Your task to perform on an android device: Search for razer blade on bestbuy.com, select the first entry, and add it to the cart. Image 0: 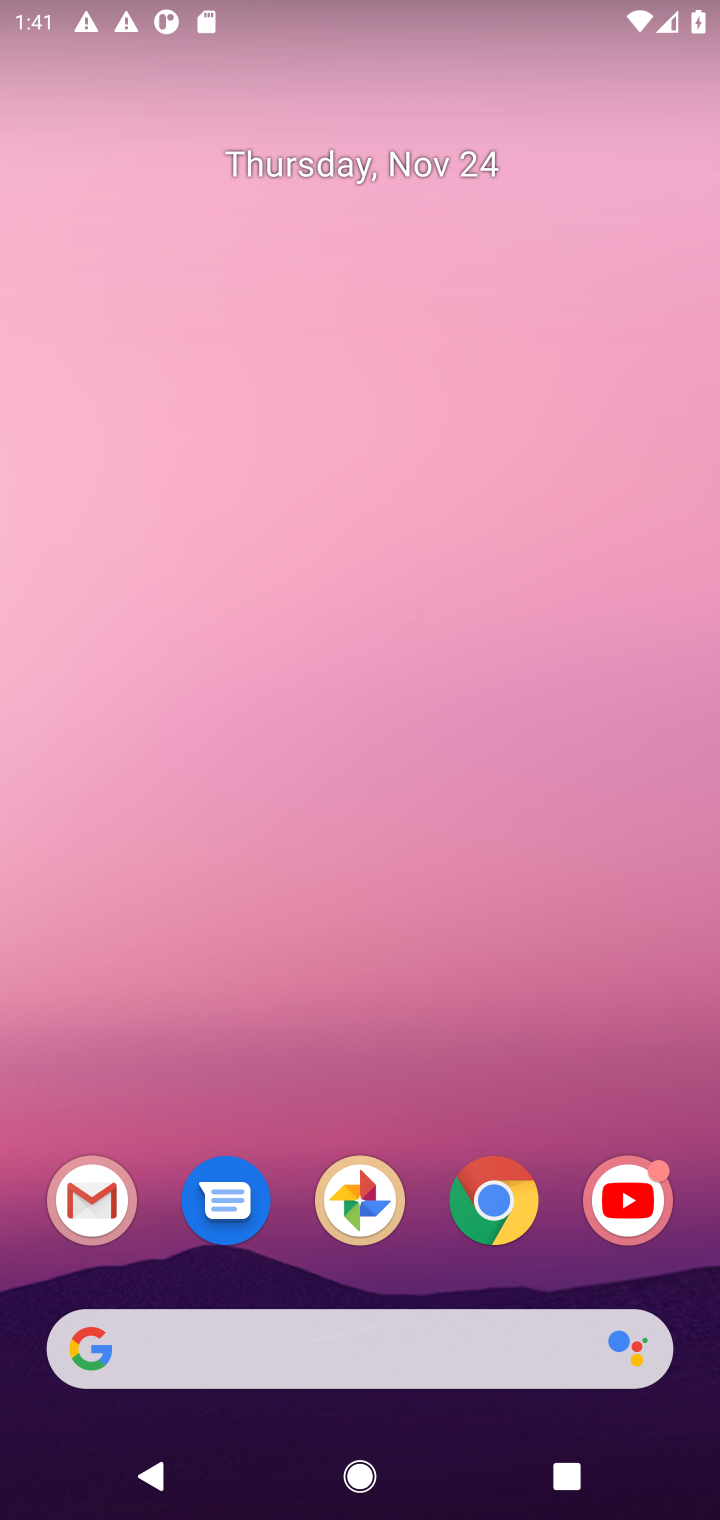
Step 0: click (478, 1367)
Your task to perform on an android device: Search for razer blade on bestbuy.com, select the first entry, and add it to the cart. Image 1: 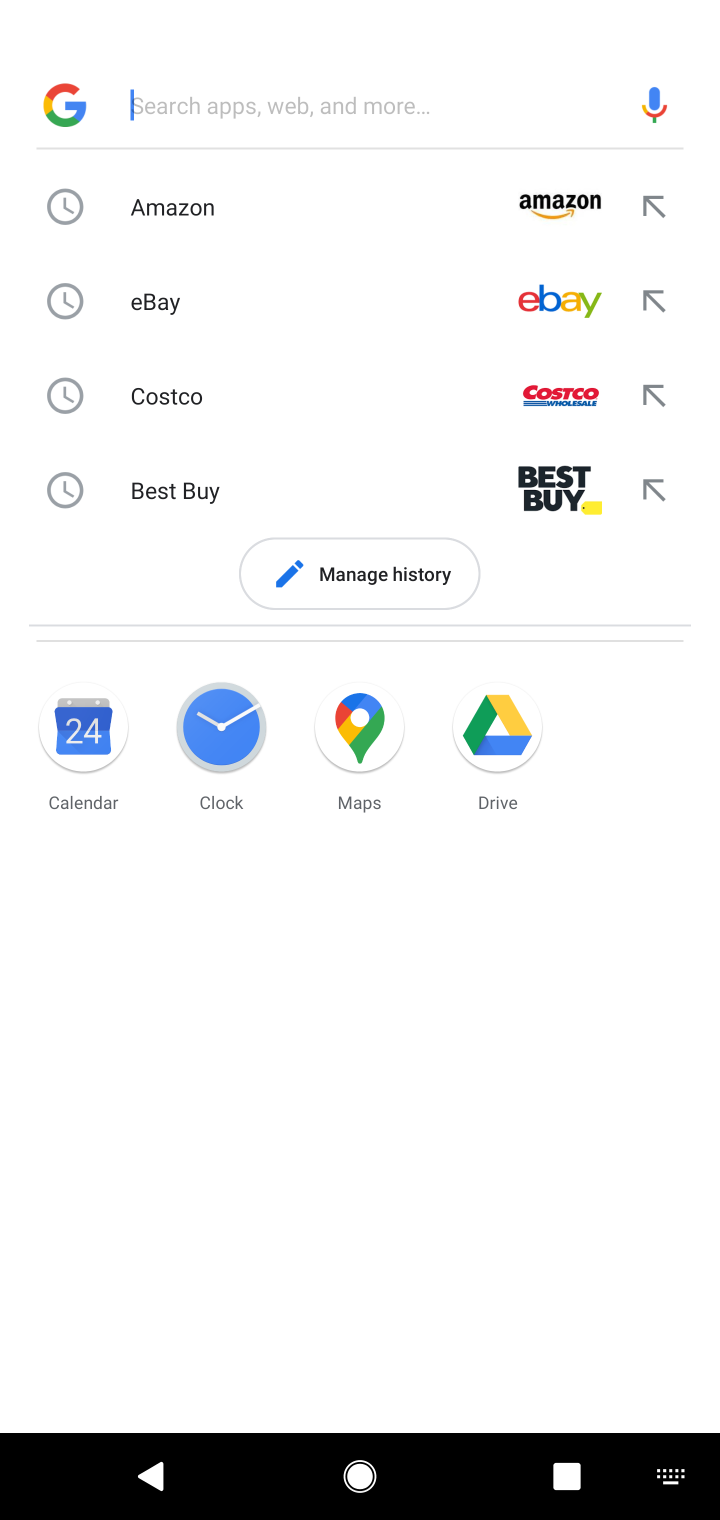
Step 1: type "bestbuy"
Your task to perform on an android device: Search for razer blade on bestbuy.com, select the first entry, and add it to the cart. Image 2: 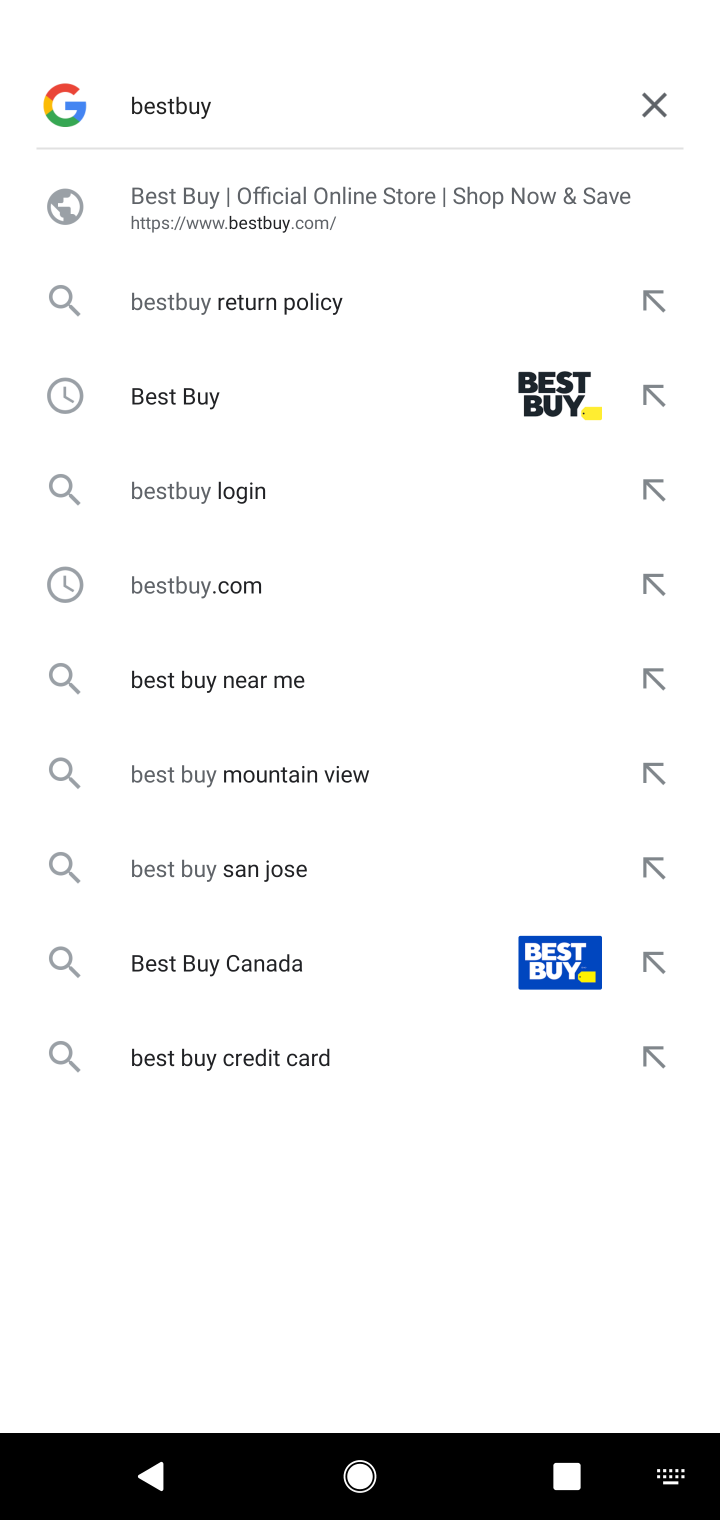
Step 2: click (356, 399)
Your task to perform on an android device: Search for razer blade on bestbuy.com, select the first entry, and add it to the cart. Image 3: 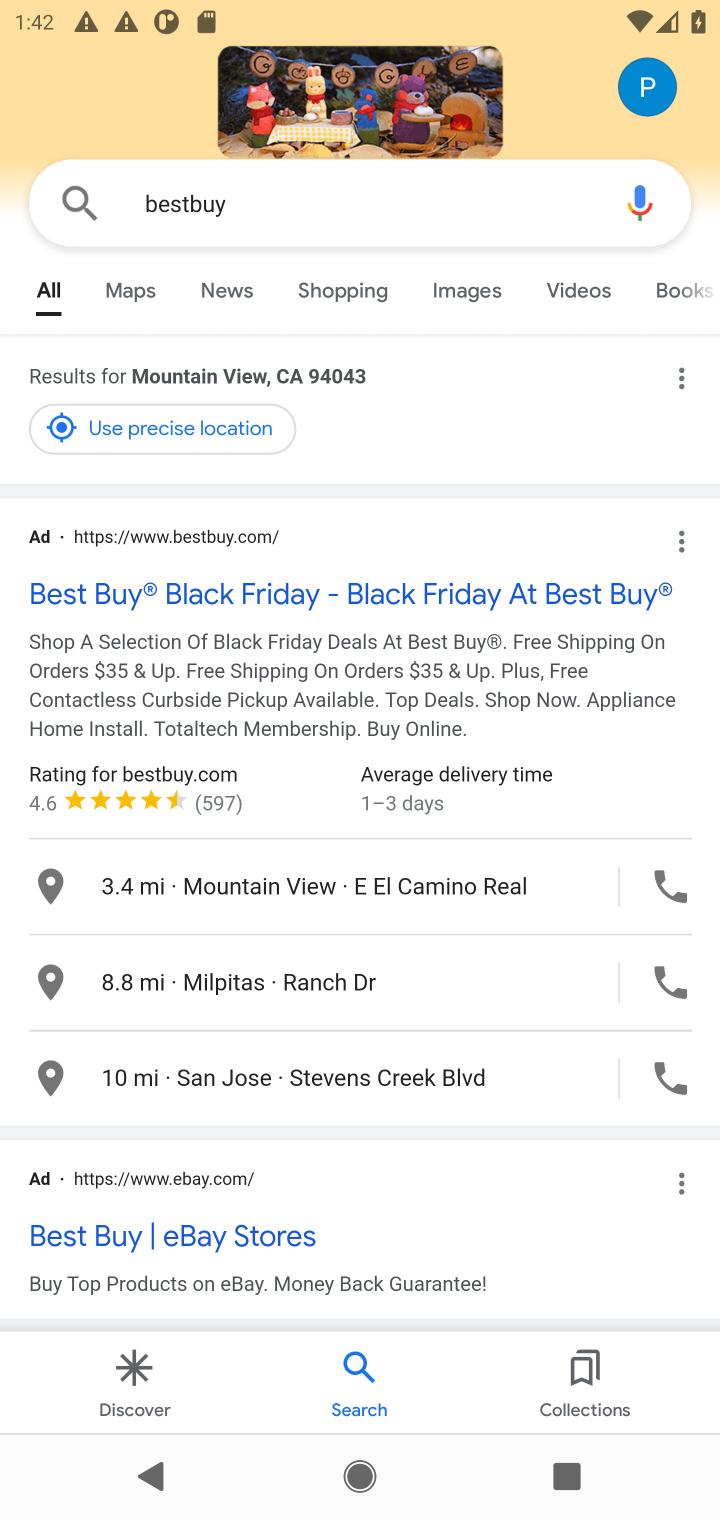
Step 3: click (208, 556)
Your task to perform on an android device: Search for razer blade on bestbuy.com, select the first entry, and add it to the cart. Image 4: 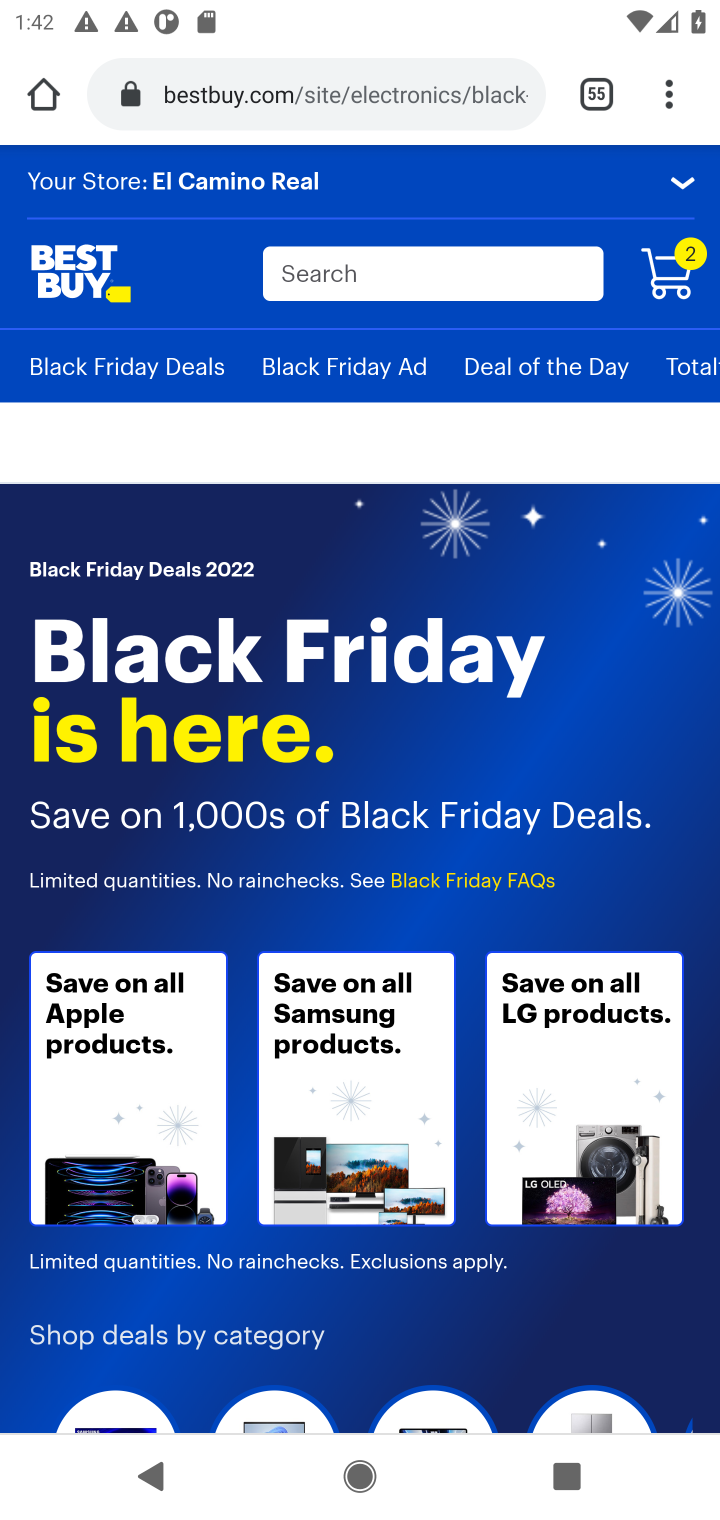
Step 4: drag from (212, 742) to (223, 278)
Your task to perform on an android device: Search for razer blade on bestbuy.com, select the first entry, and add it to the cart. Image 5: 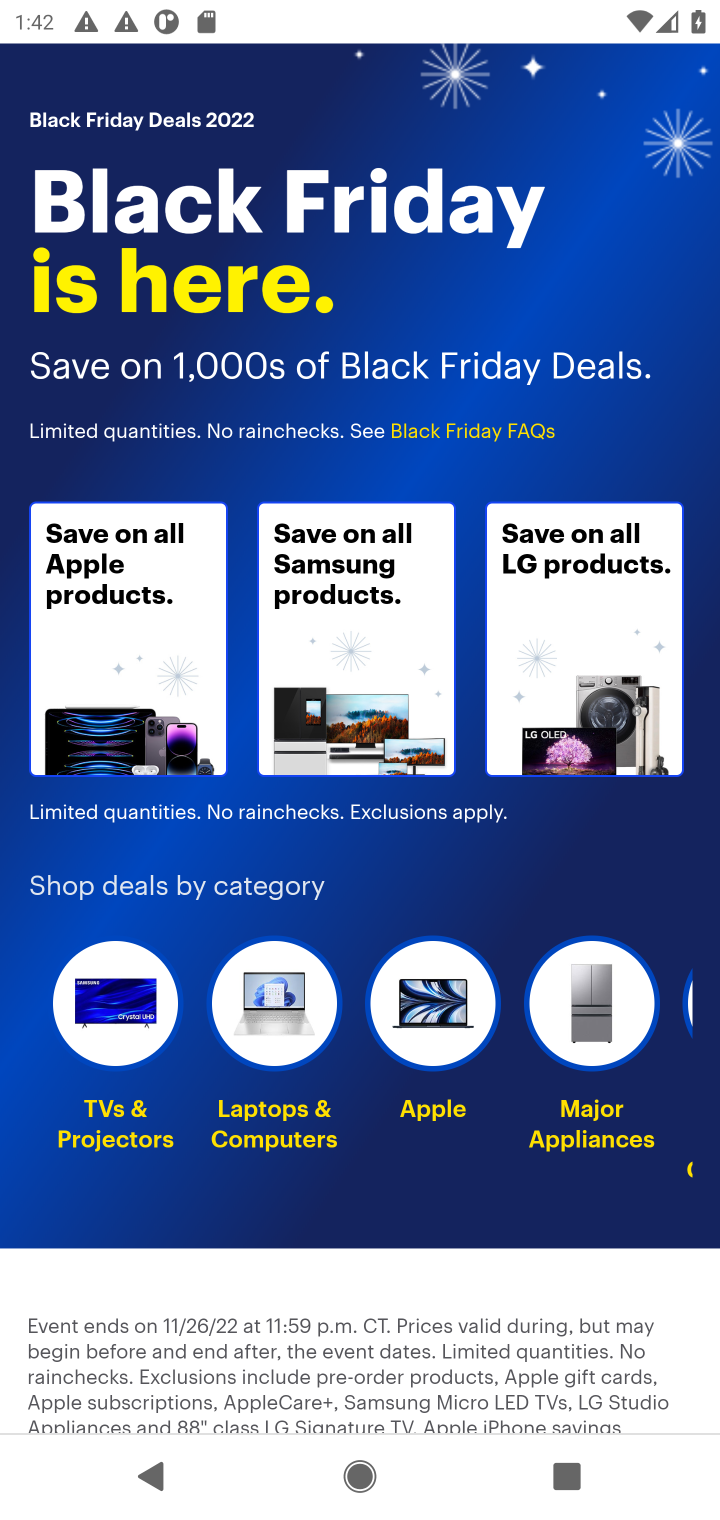
Step 5: drag from (208, 1231) to (209, 151)
Your task to perform on an android device: Search for razer blade on bestbuy.com, select the first entry, and add it to the cart. Image 6: 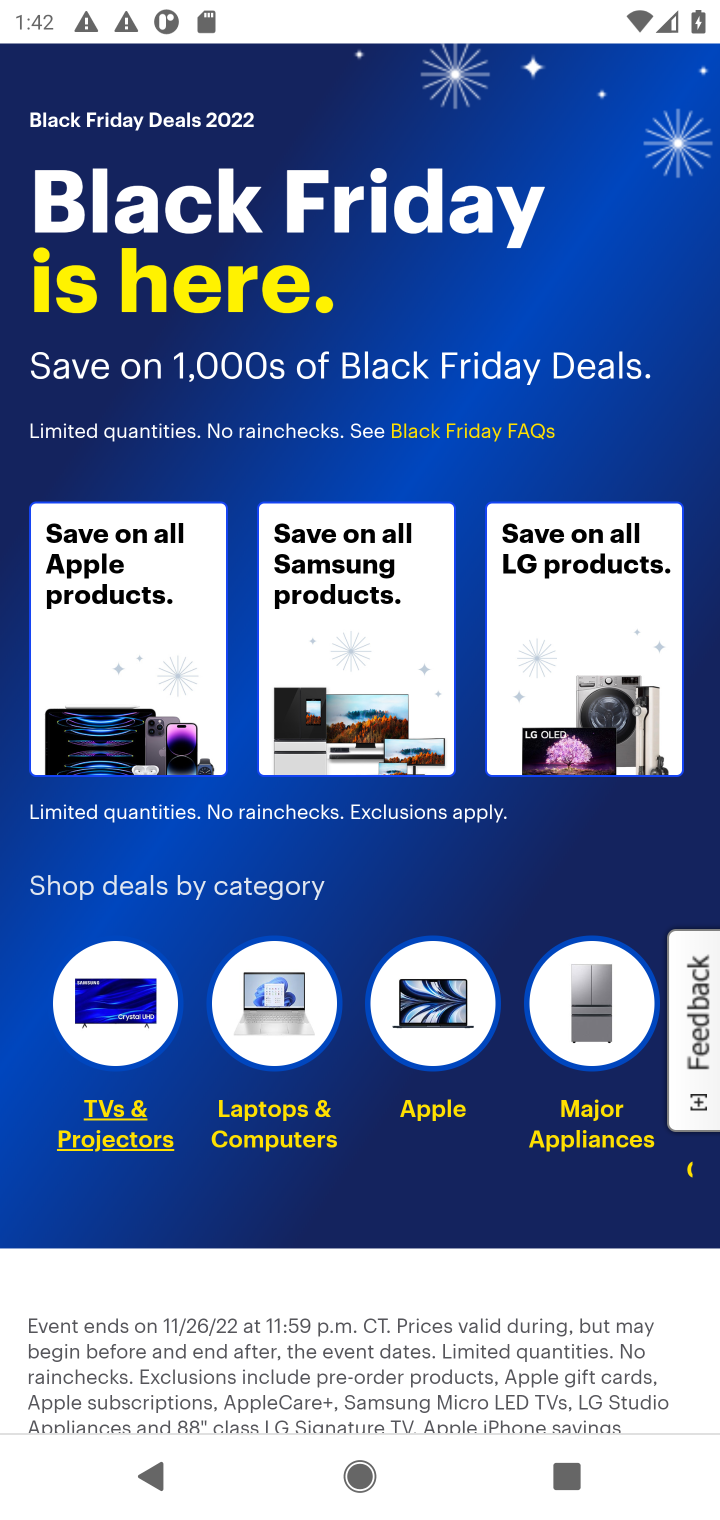
Step 6: drag from (249, 1220) to (263, 57)
Your task to perform on an android device: Search for razer blade on bestbuy.com, select the first entry, and add it to the cart. Image 7: 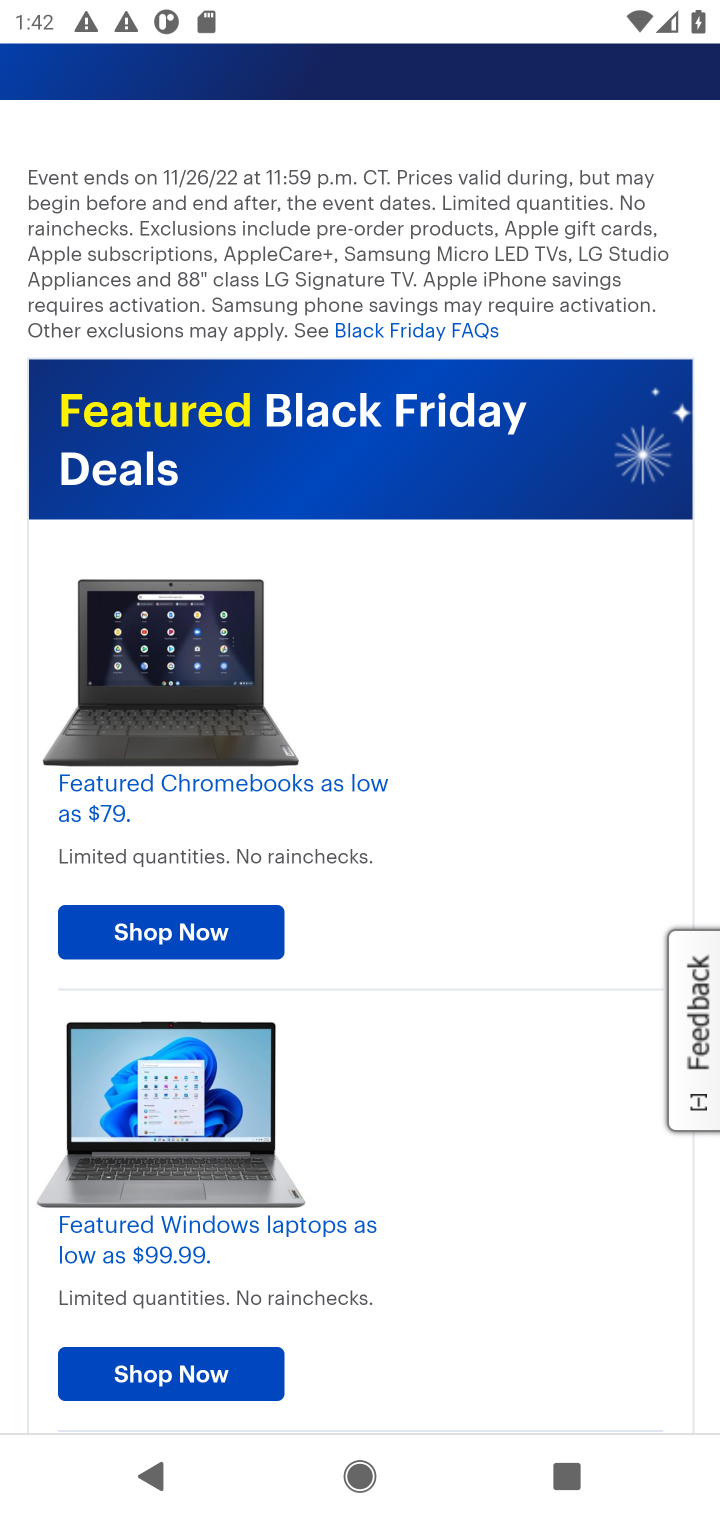
Step 7: drag from (510, 677) to (43, 580)
Your task to perform on an android device: Search for razer blade on bestbuy.com, select the first entry, and add it to the cart. Image 8: 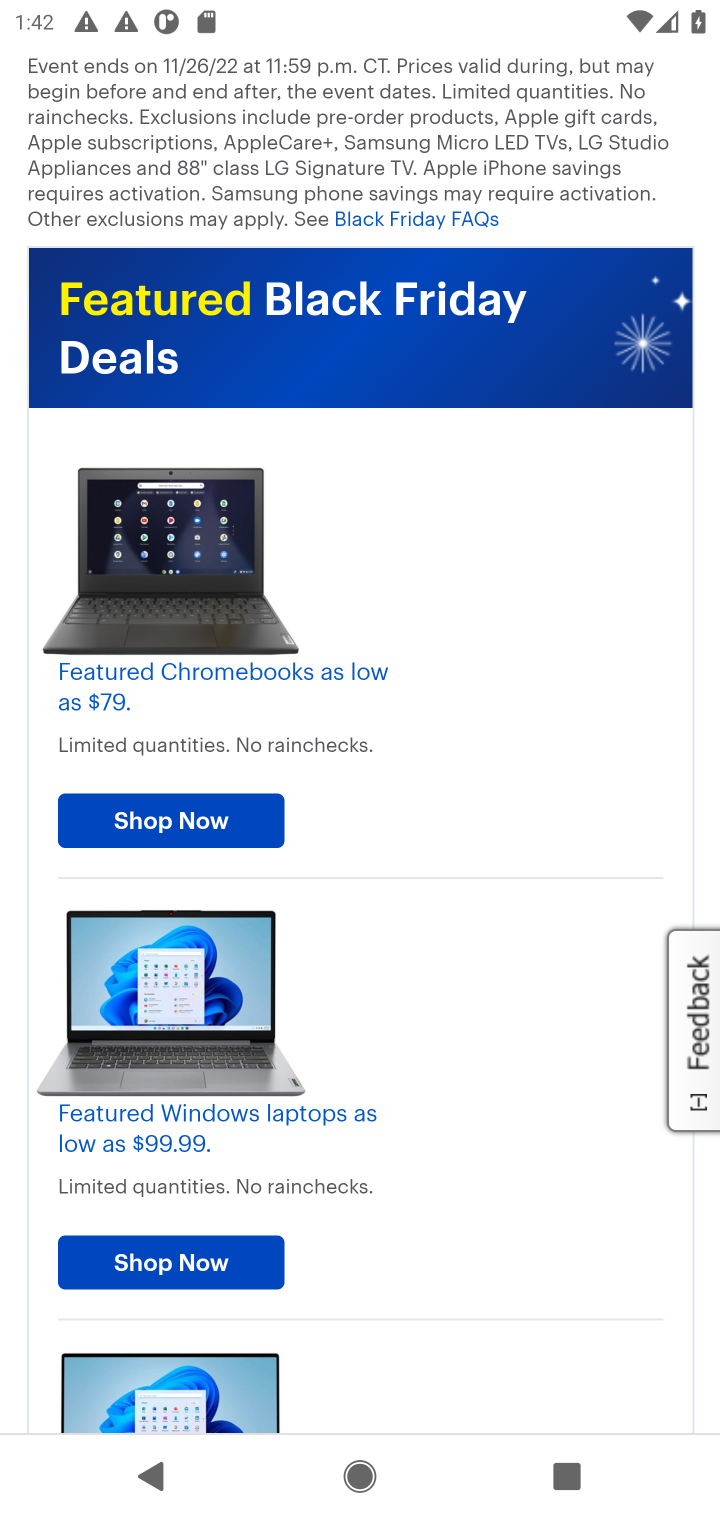
Step 8: drag from (436, 586) to (660, 951)
Your task to perform on an android device: Search for razer blade on bestbuy.com, select the first entry, and add it to the cart. Image 9: 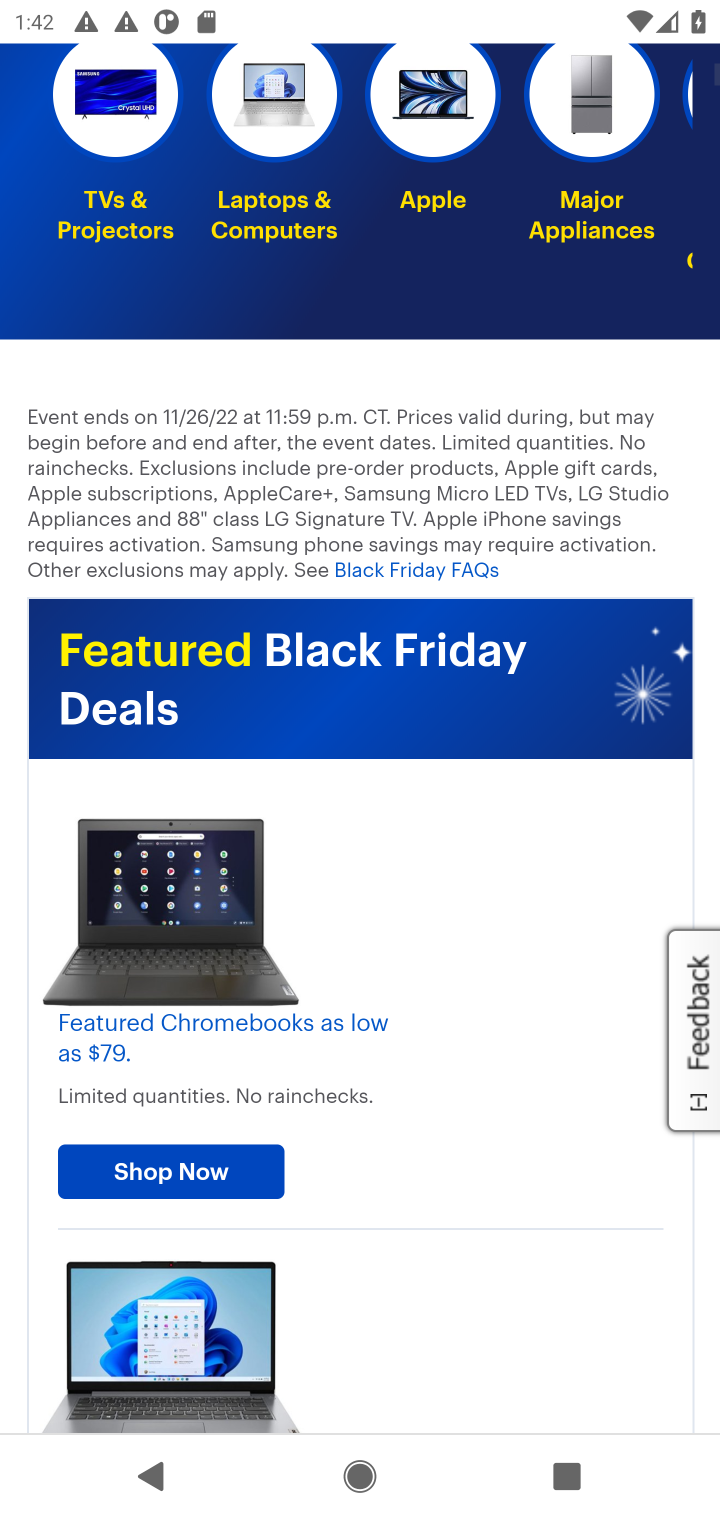
Step 9: click (447, 189)
Your task to perform on an android device: Search for razer blade on bestbuy.com, select the first entry, and add it to the cart. Image 10: 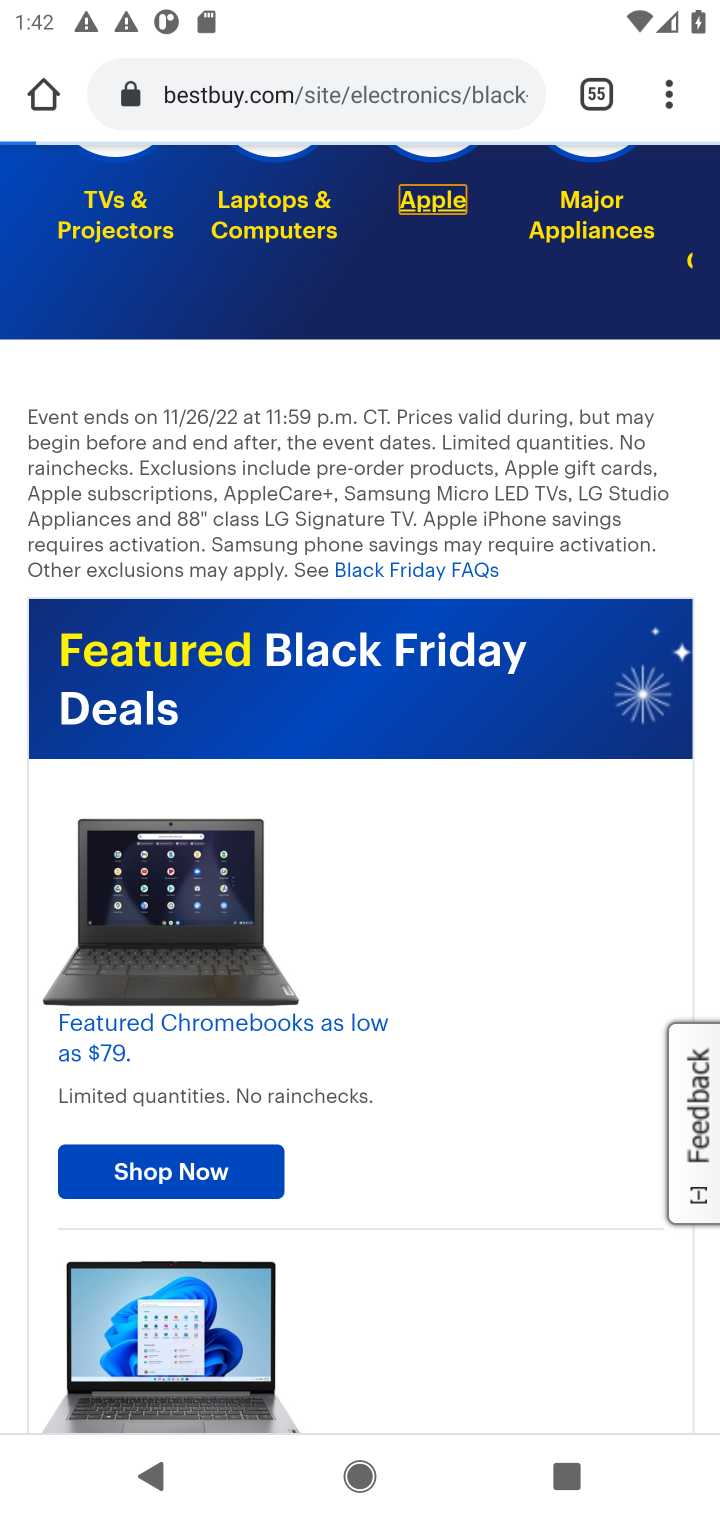
Step 10: task complete